Your task to perform on an android device: Open the calendar and show me this week's events? Image 0: 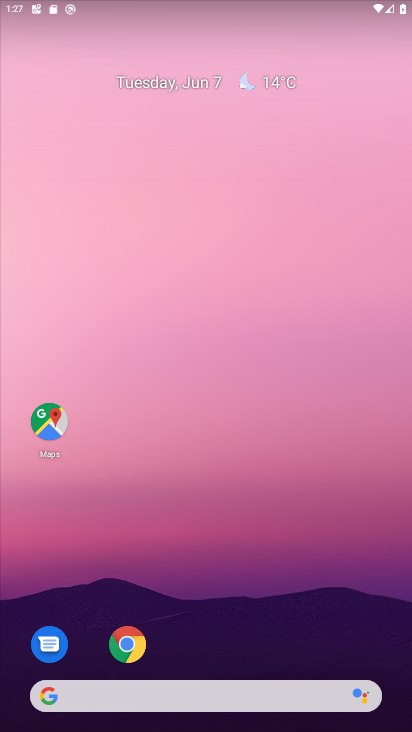
Step 0: drag from (242, 628) to (217, 23)
Your task to perform on an android device: Open the calendar and show me this week's events? Image 1: 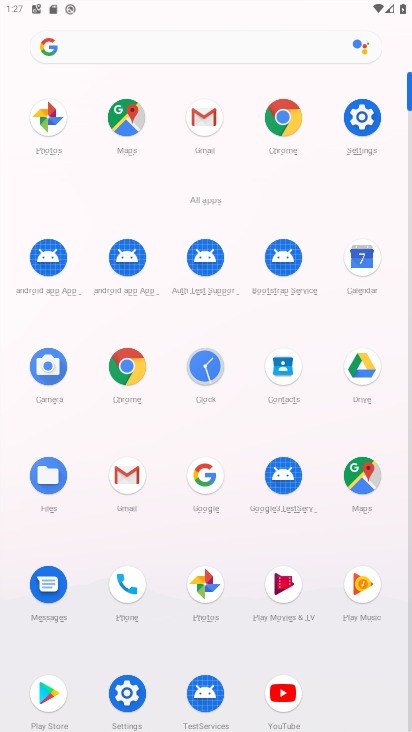
Step 1: click (360, 252)
Your task to perform on an android device: Open the calendar and show me this week's events? Image 2: 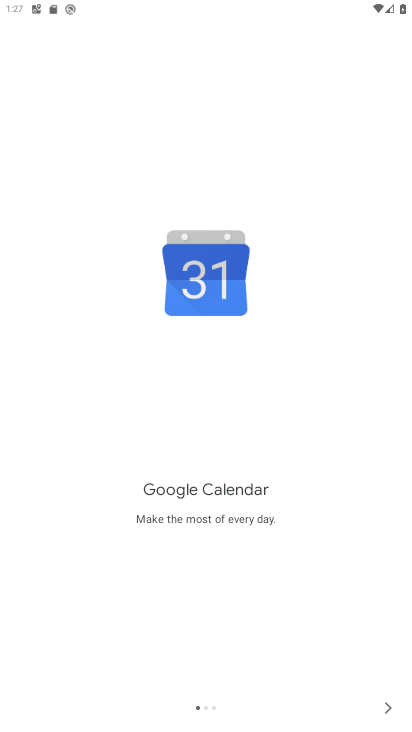
Step 2: click (384, 706)
Your task to perform on an android device: Open the calendar and show me this week's events? Image 3: 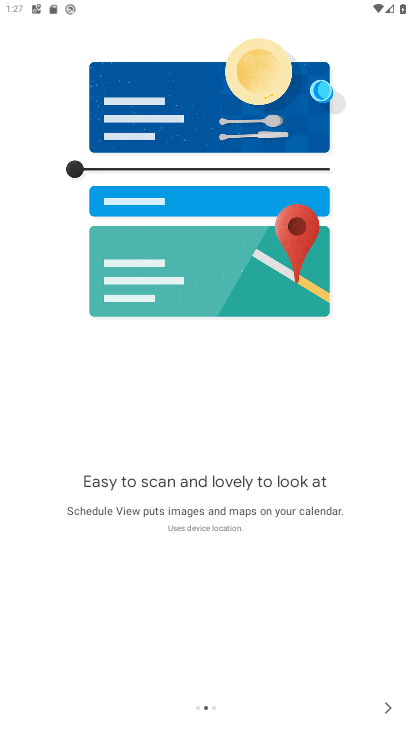
Step 3: click (384, 706)
Your task to perform on an android device: Open the calendar and show me this week's events? Image 4: 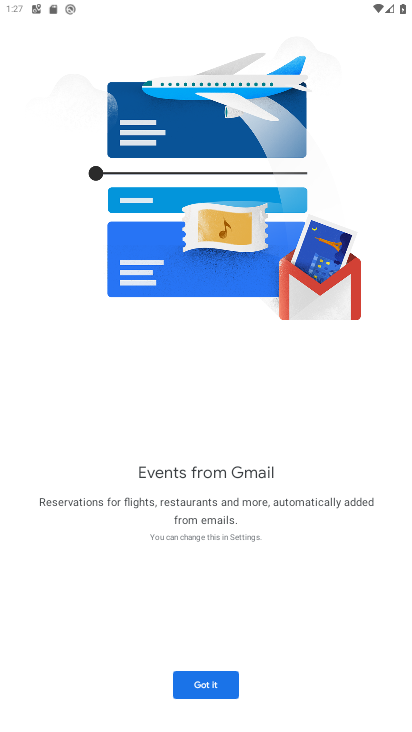
Step 4: click (213, 689)
Your task to perform on an android device: Open the calendar and show me this week's events? Image 5: 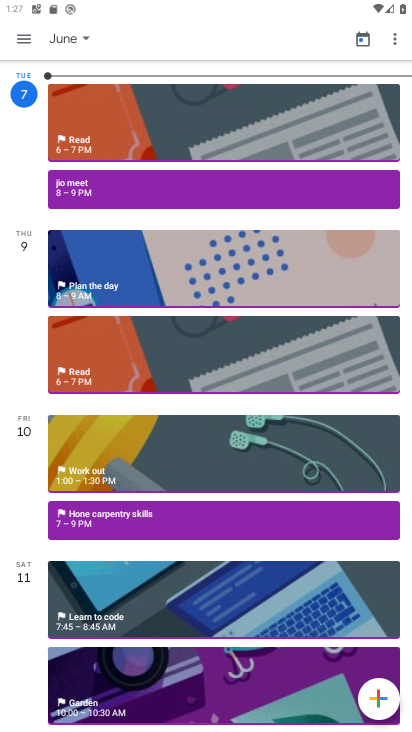
Step 5: task complete